Your task to perform on an android device: What is the capital of Canada? Image 0: 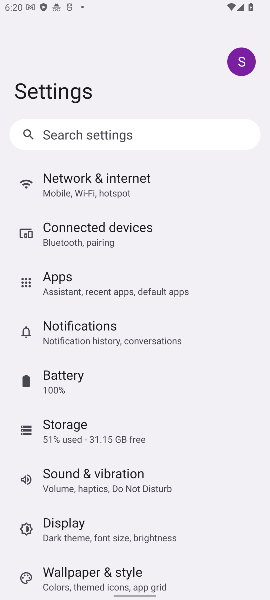
Step 0: task complete